Your task to perform on an android device: Go to Android settings Image 0: 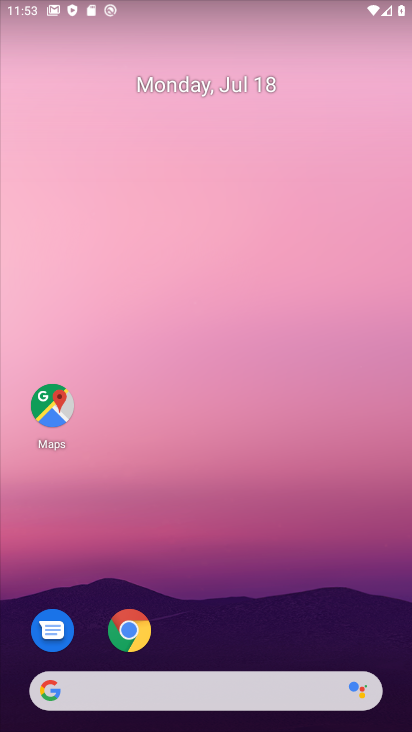
Step 0: drag from (222, 523) to (232, 206)
Your task to perform on an android device: Go to Android settings Image 1: 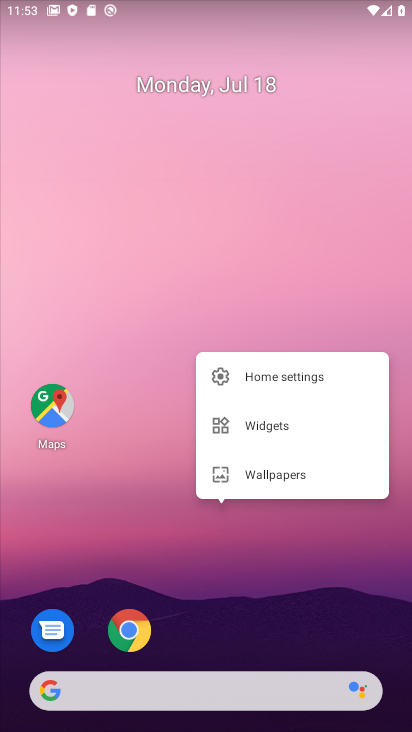
Step 1: click (144, 327)
Your task to perform on an android device: Go to Android settings Image 2: 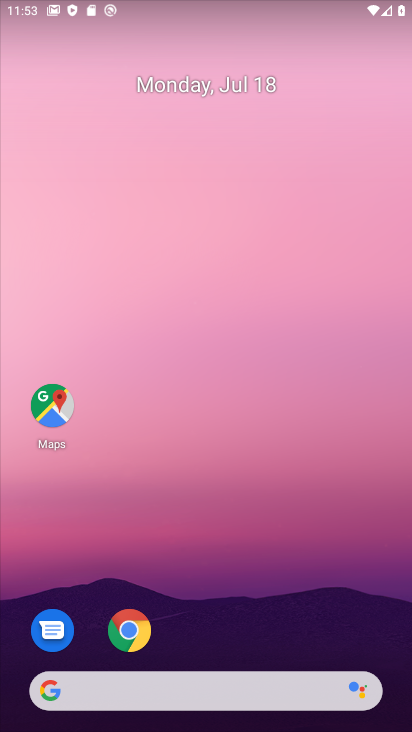
Step 2: drag from (195, 461) to (292, 7)
Your task to perform on an android device: Go to Android settings Image 3: 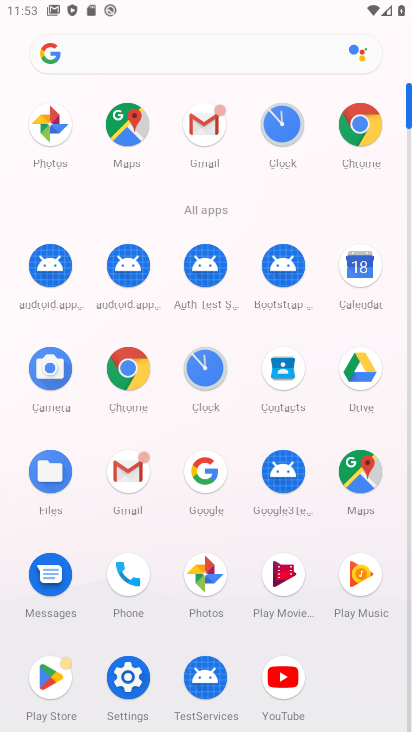
Step 3: click (130, 683)
Your task to perform on an android device: Go to Android settings Image 4: 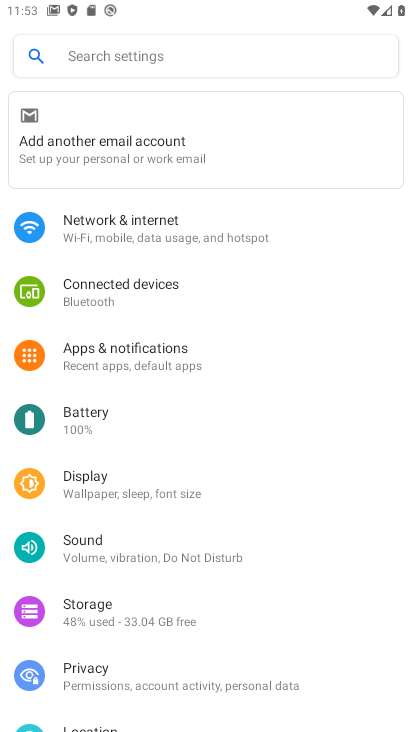
Step 4: task complete